Your task to perform on an android device: choose inbox layout in the gmail app Image 0: 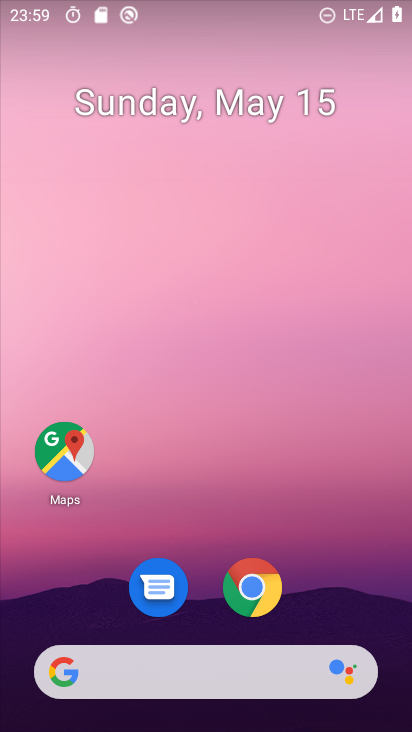
Step 0: drag from (201, 622) to (251, 262)
Your task to perform on an android device: choose inbox layout in the gmail app Image 1: 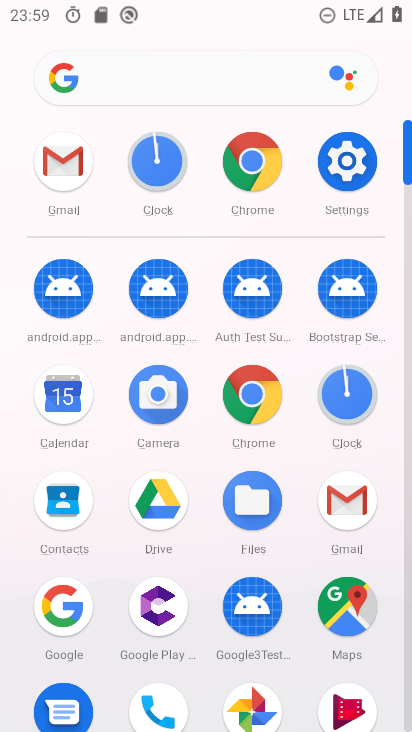
Step 1: click (71, 160)
Your task to perform on an android device: choose inbox layout in the gmail app Image 2: 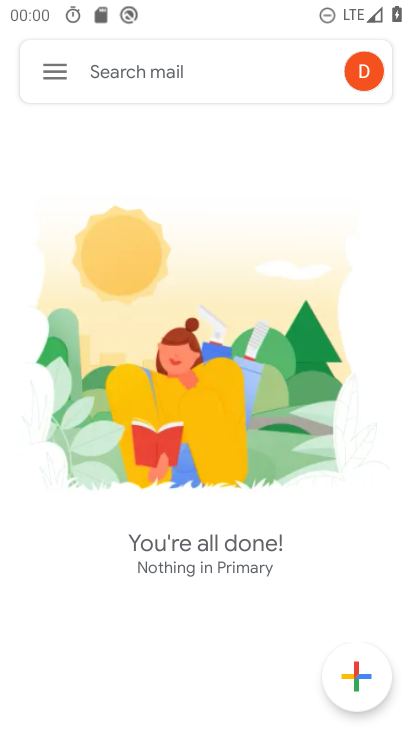
Step 2: click (45, 65)
Your task to perform on an android device: choose inbox layout in the gmail app Image 3: 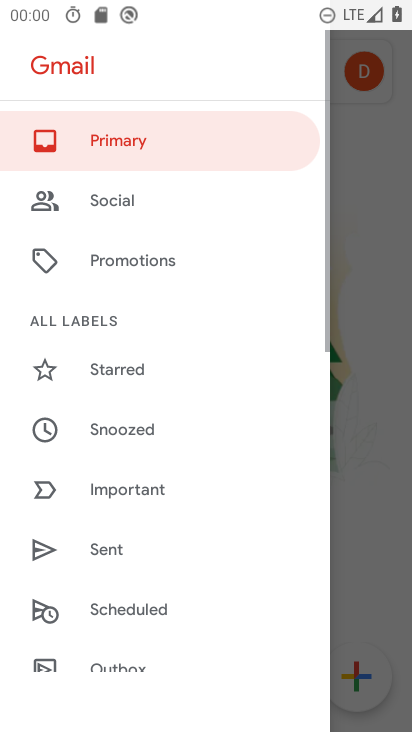
Step 3: drag from (145, 639) to (162, 376)
Your task to perform on an android device: choose inbox layout in the gmail app Image 4: 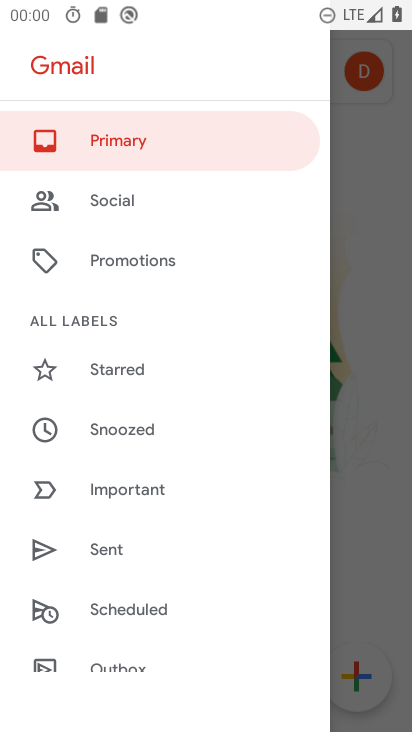
Step 4: drag from (178, 563) to (205, 319)
Your task to perform on an android device: choose inbox layout in the gmail app Image 5: 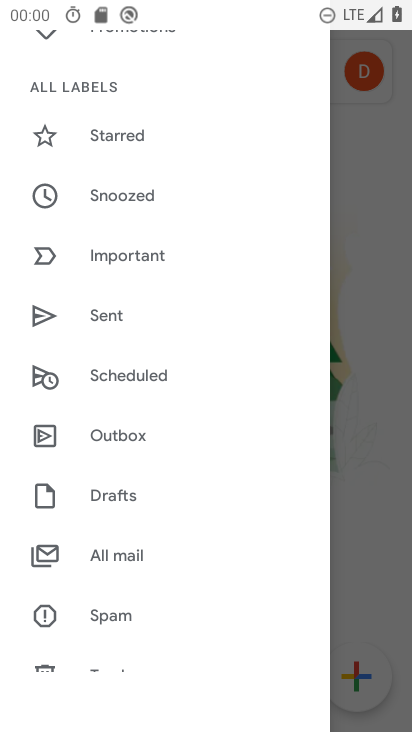
Step 5: drag from (166, 500) to (174, 326)
Your task to perform on an android device: choose inbox layout in the gmail app Image 6: 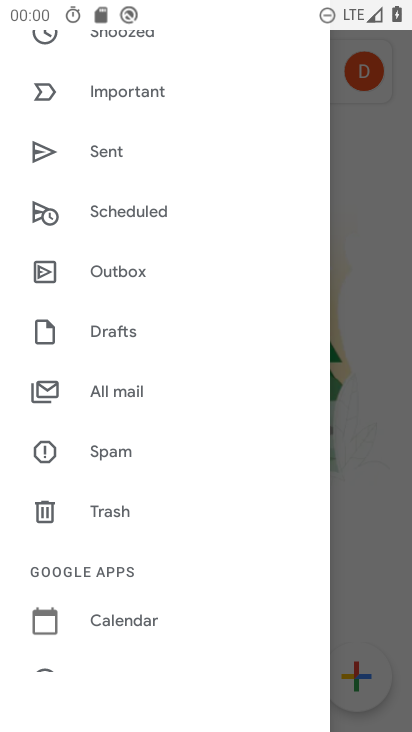
Step 6: drag from (137, 622) to (160, 354)
Your task to perform on an android device: choose inbox layout in the gmail app Image 7: 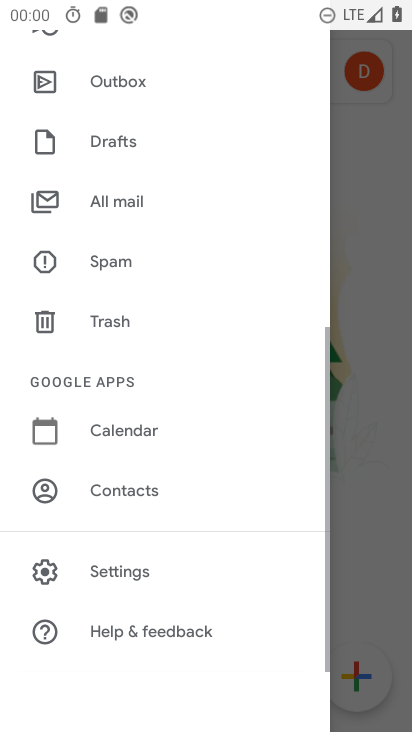
Step 7: click (121, 572)
Your task to perform on an android device: choose inbox layout in the gmail app Image 8: 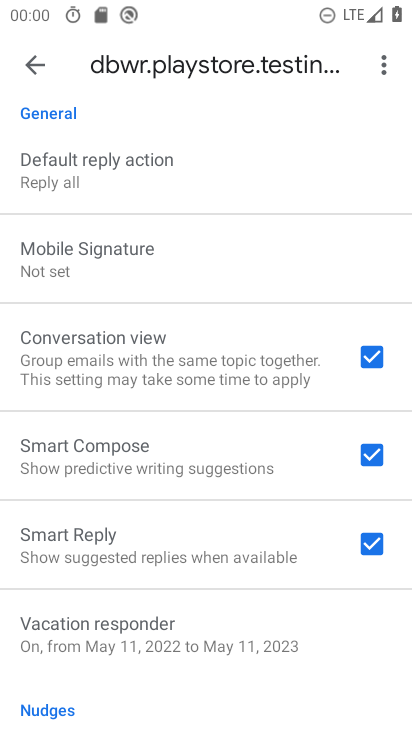
Step 8: drag from (177, 243) to (168, 639)
Your task to perform on an android device: choose inbox layout in the gmail app Image 9: 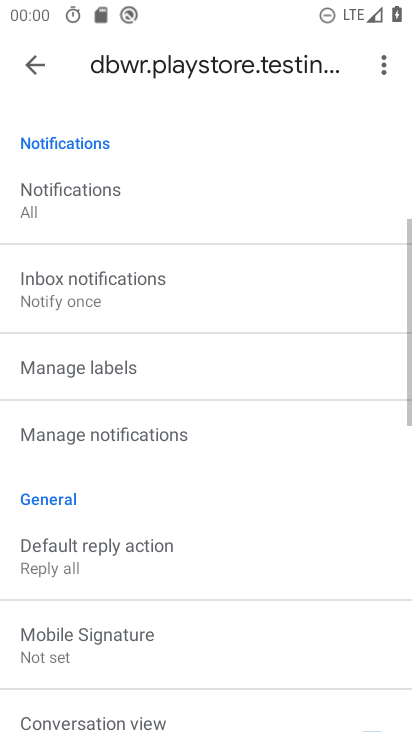
Step 9: drag from (159, 222) to (173, 525)
Your task to perform on an android device: choose inbox layout in the gmail app Image 10: 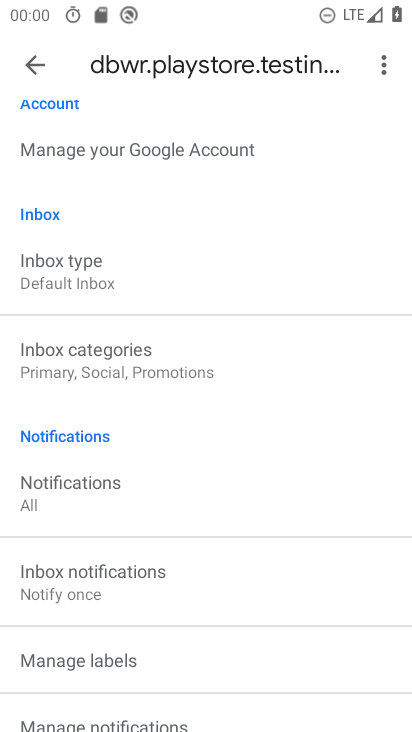
Step 10: click (146, 282)
Your task to perform on an android device: choose inbox layout in the gmail app Image 11: 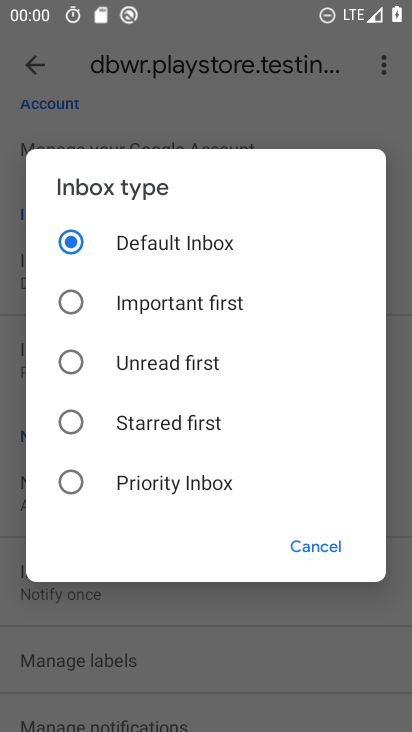
Step 11: click (179, 480)
Your task to perform on an android device: choose inbox layout in the gmail app Image 12: 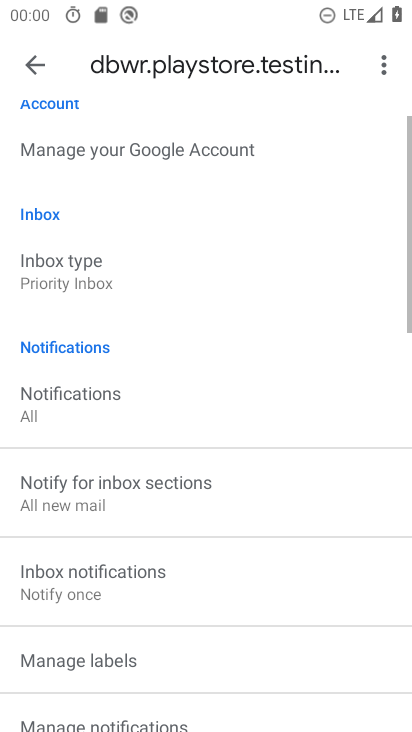
Step 12: task complete